Your task to perform on an android device: Search for pizza restaurants on Maps Image 0: 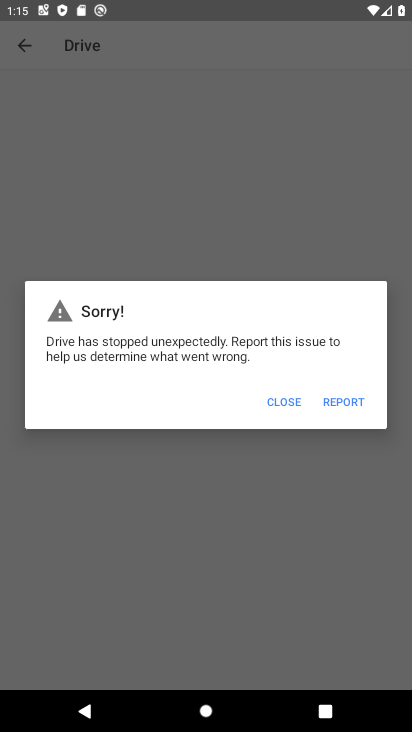
Step 0: press home button
Your task to perform on an android device: Search for pizza restaurants on Maps Image 1: 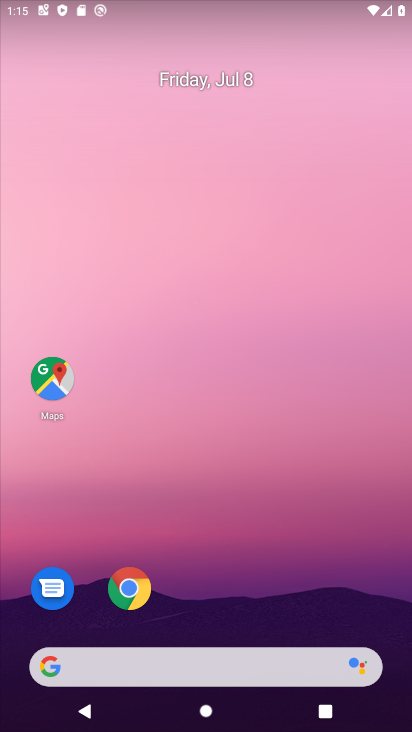
Step 1: drag from (190, 635) to (224, 173)
Your task to perform on an android device: Search for pizza restaurants on Maps Image 2: 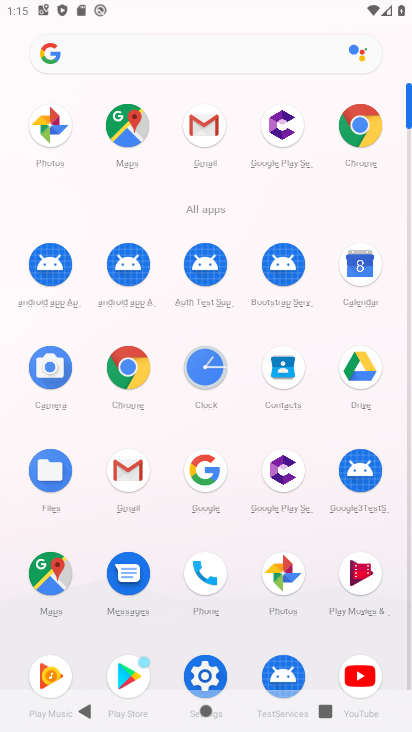
Step 2: click (56, 581)
Your task to perform on an android device: Search for pizza restaurants on Maps Image 3: 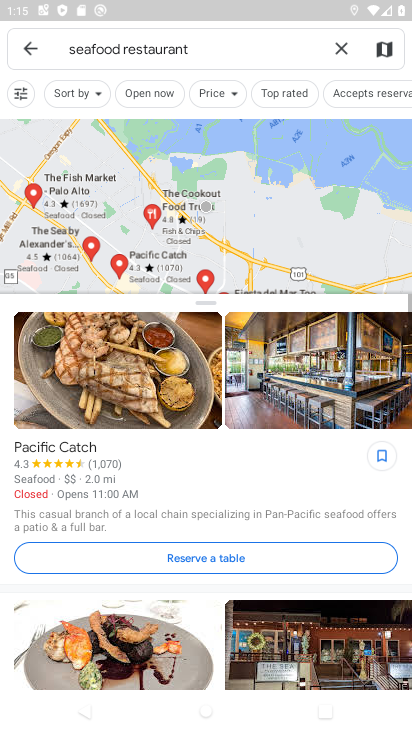
Step 3: click (334, 43)
Your task to perform on an android device: Search for pizza restaurants on Maps Image 4: 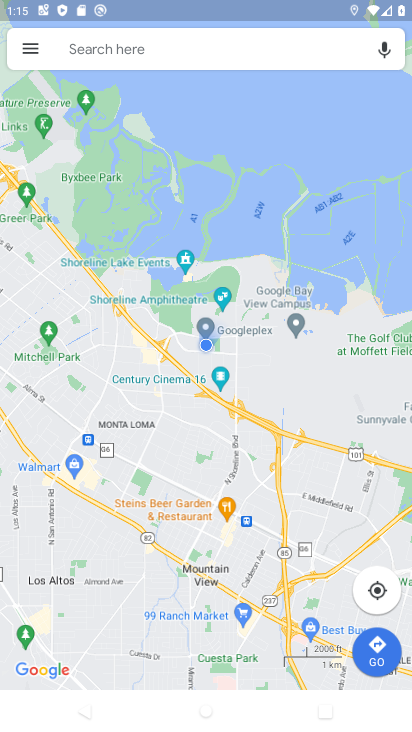
Step 4: click (222, 54)
Your task to perform on an android device: Search for pizza restaurants on Maps Image 5: 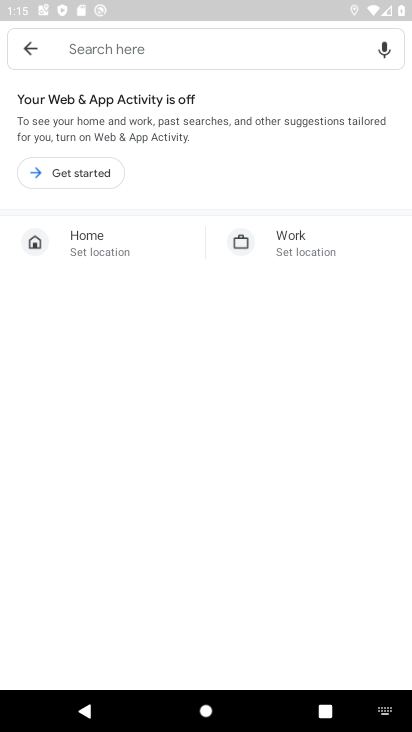
Step 5: type "Pizza restaurants"
Your task to perform on an android device: Search for pizza restaurants on Maps Image 6: 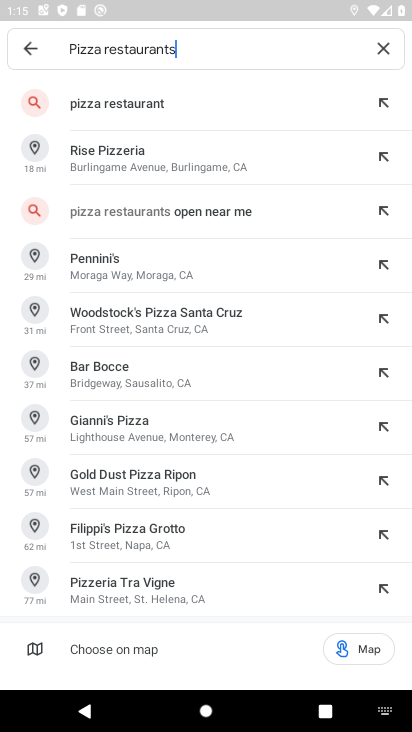
Step 6: click (173, 105)
Your task to perform on an android device: Search for pizza restaurants on Maps Image 7: 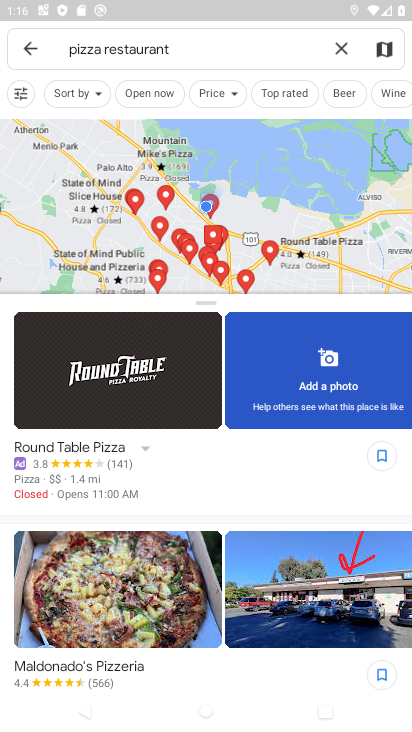
Step 7: task complete